Your task to perform on an android device: empty trash in google photos Image 0: 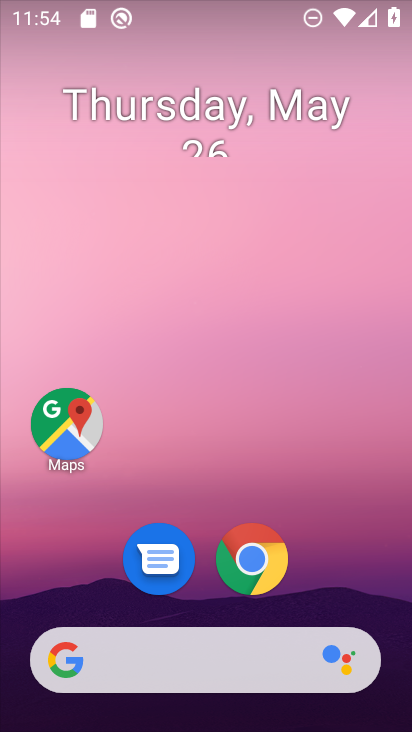
Step 0: drag from (311, 501) to (288, 90)
Your task to perform on an android device: empty trash in google photos Image 1: 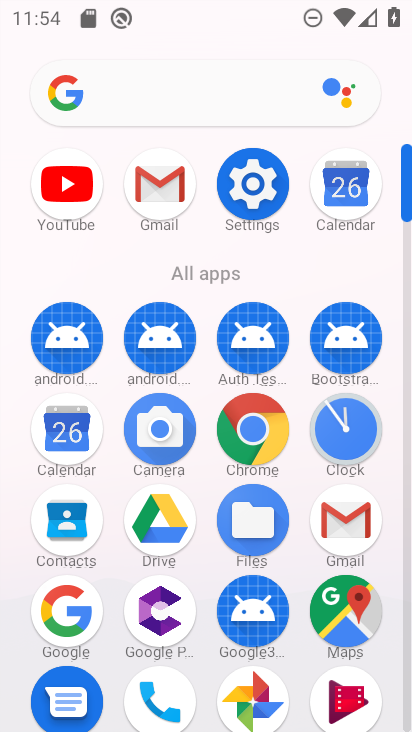
Step 1: click (264, 692)
Your task to perform on an android device: empty trash in google photos Image 2: 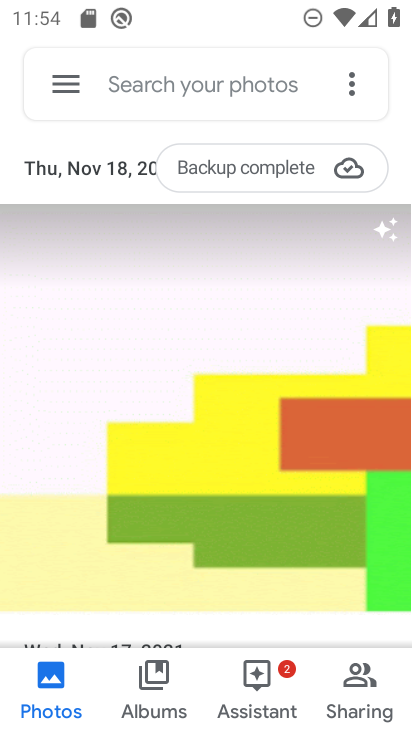
Step 2: click (74, 85)
Your task to perform on an android device: empty trash in google photos Image 3: 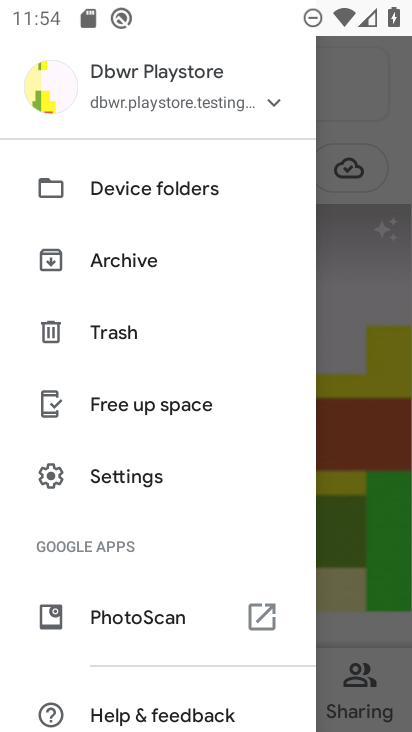
Step 3: click (64, 324)
Your task to perform on an android device: empty trash in google photos Image 4: 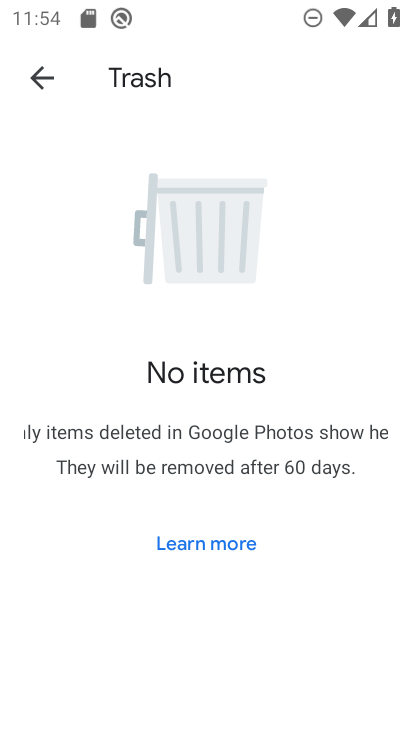
Step 4: task complete